Your task to perform on an android device: What's on my calendar tomorrow? Image 0: 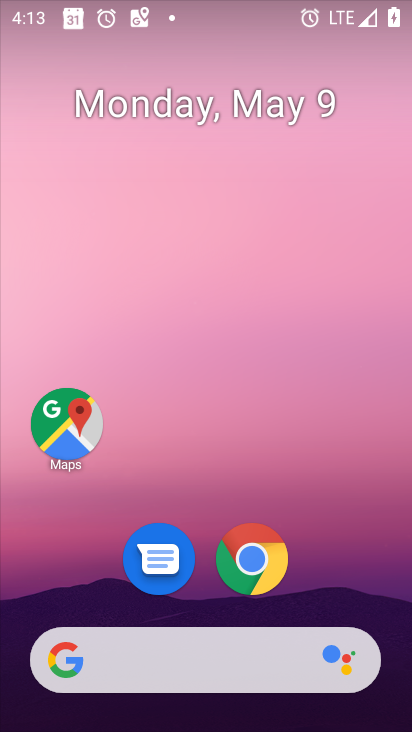
Step 0: drag from (224, 726) to (214, 84)
Your task to perform on an android device: What's on my calendar tomorrow? Image 1: 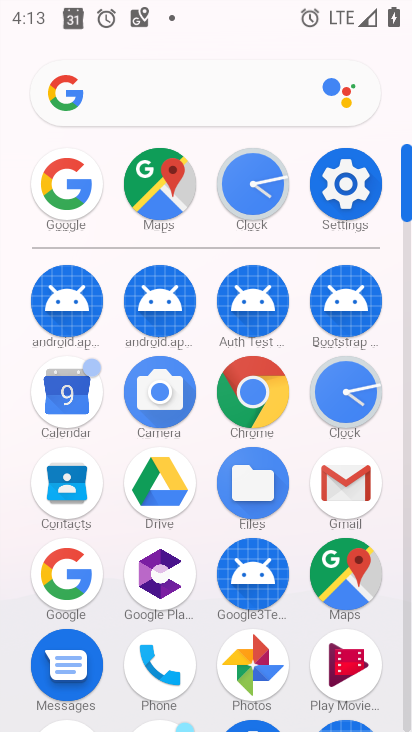
Step 1: click (60, 396)
Your task to perform on an android device: What's on my calendar tomorrow? Image 2: 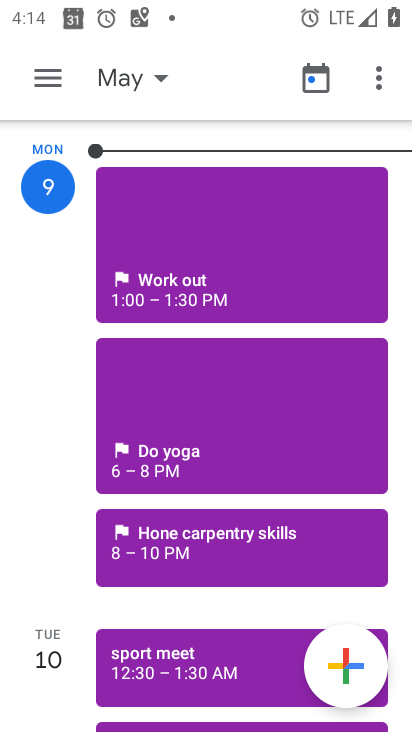
Step 2: click (122, 81)
Your task to perform on an android device: What's on my calendar tomorrow? Image 3: 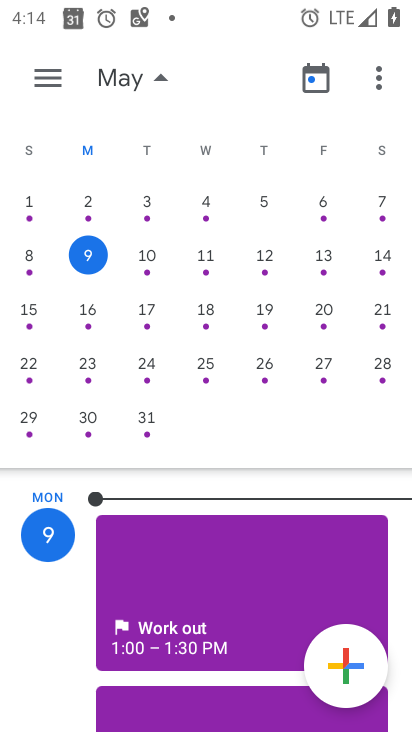
Step 3: click (89, 252)
Your task to perform on an android device: What's on my calendar tomorrow? Image 4: 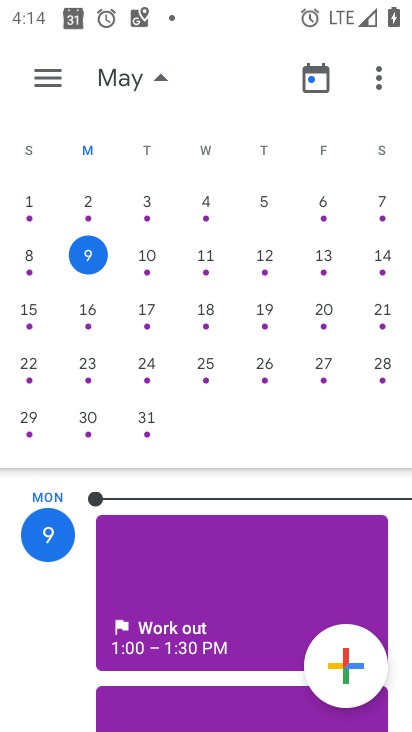
Step 4: task complete